Your task to perform on an android device: delete a single message in the gmail app Image 0: 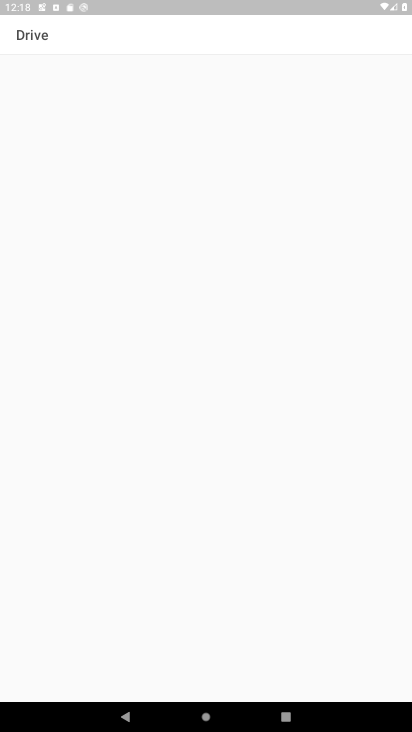
Step 0: drag from (262, 602) to (280, 88)
Your task to perform on an android device: delete a single message in the gmail app Image 1: 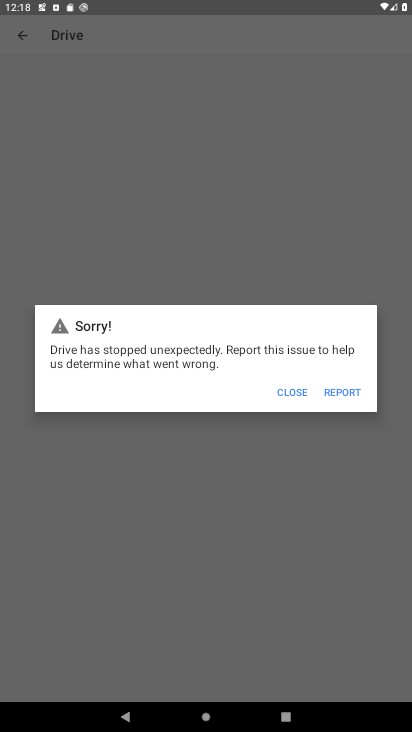
Step 1: press home button
Your task to perform on an android device: delete a single message in the gmail app Image 2: 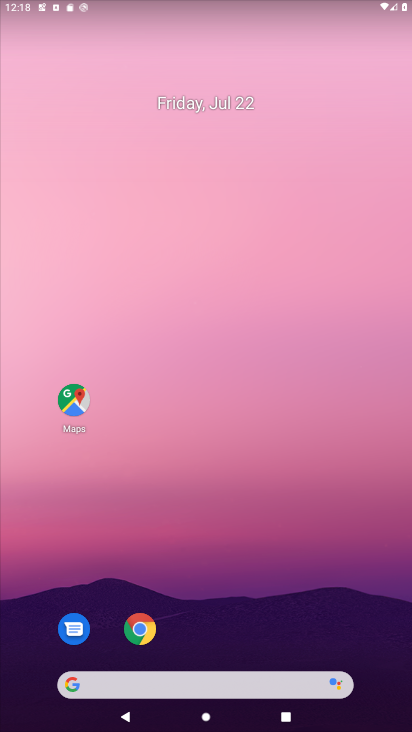
Step 2: drag from (257, 636) to (271, 87)
Your task to perform on an android device: delete a single message in the gmail app Image 3: 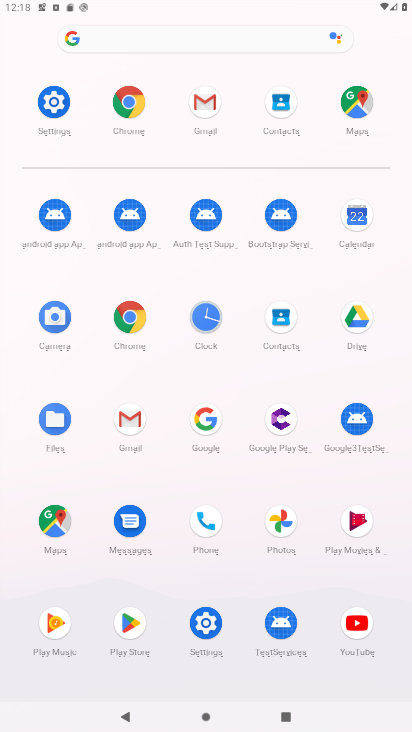
Step 3: click (122, 428)
Your task to perform on an android device: delete a single message in the gmail app Image 4: 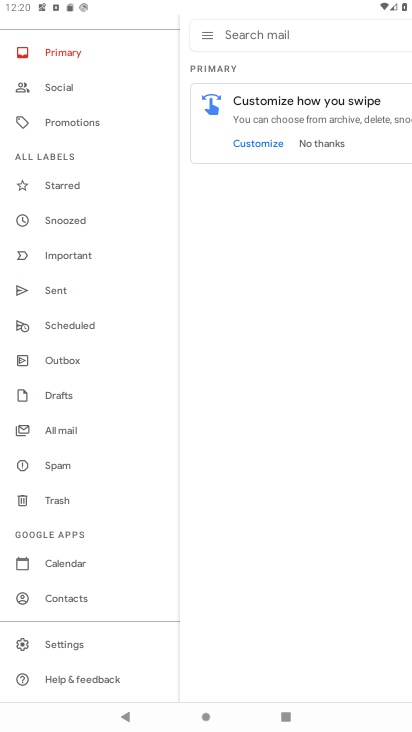
Step 4: click (53, 435)
Your task to perform on an android device: delete a single message in the gmail app Image 5: 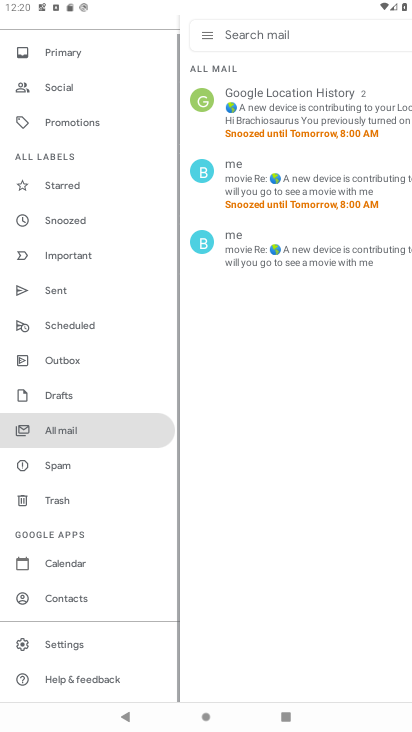
Step 5: click (285, 114)
Your task to perform on an android device: delete a single message in the gmail app Image 6: 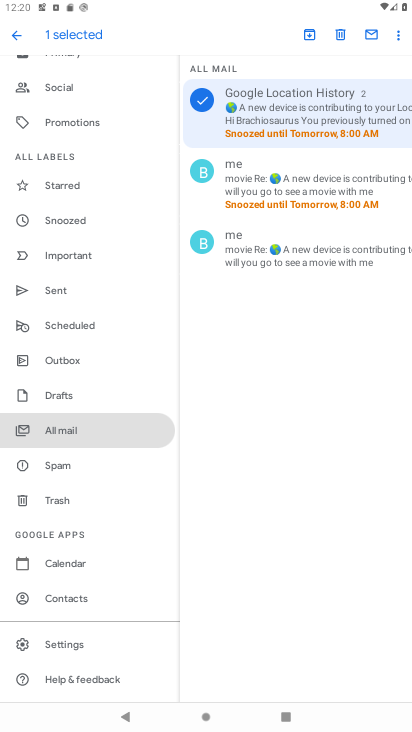
Step 6: click (344, 35)
Your task to perform on an android device: delete a single message in the gmail app Image 7: 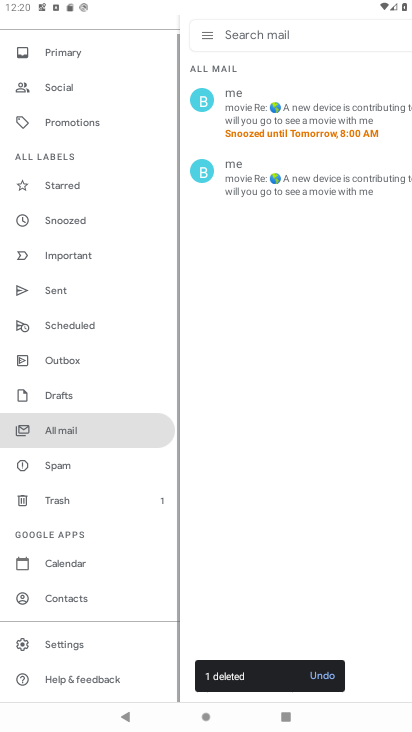
Step 7: task complete